Your task to perform on an android device: Search for the new Apple Watch on Best Buy Image 0: 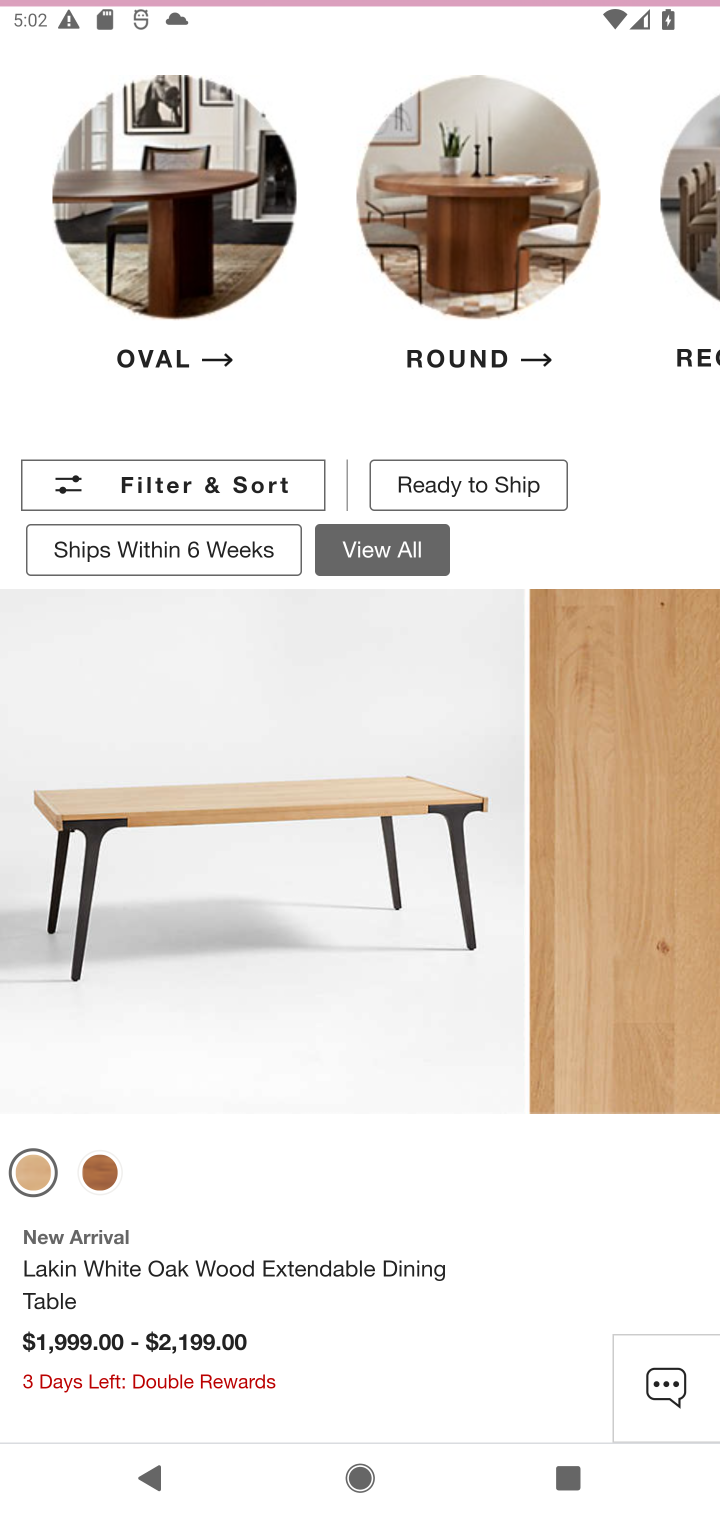
Step 0: press home button
Your task to perform on an android device: Search for the new Apple Watch on Best Buy Image 1: 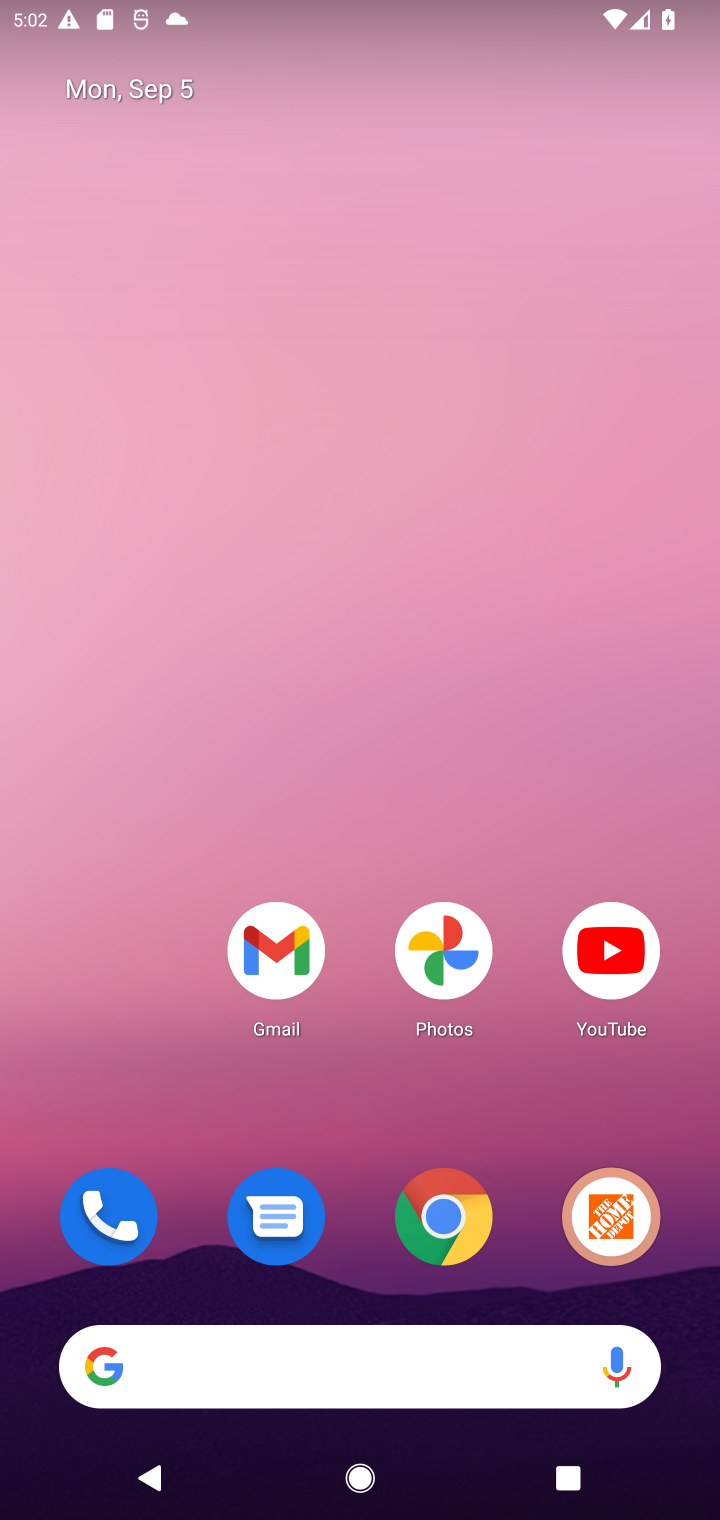
Step 1: click (95, 1362)
Your task to perform on an android device: Search for the new Apple Watch on Best Buy Image 2: 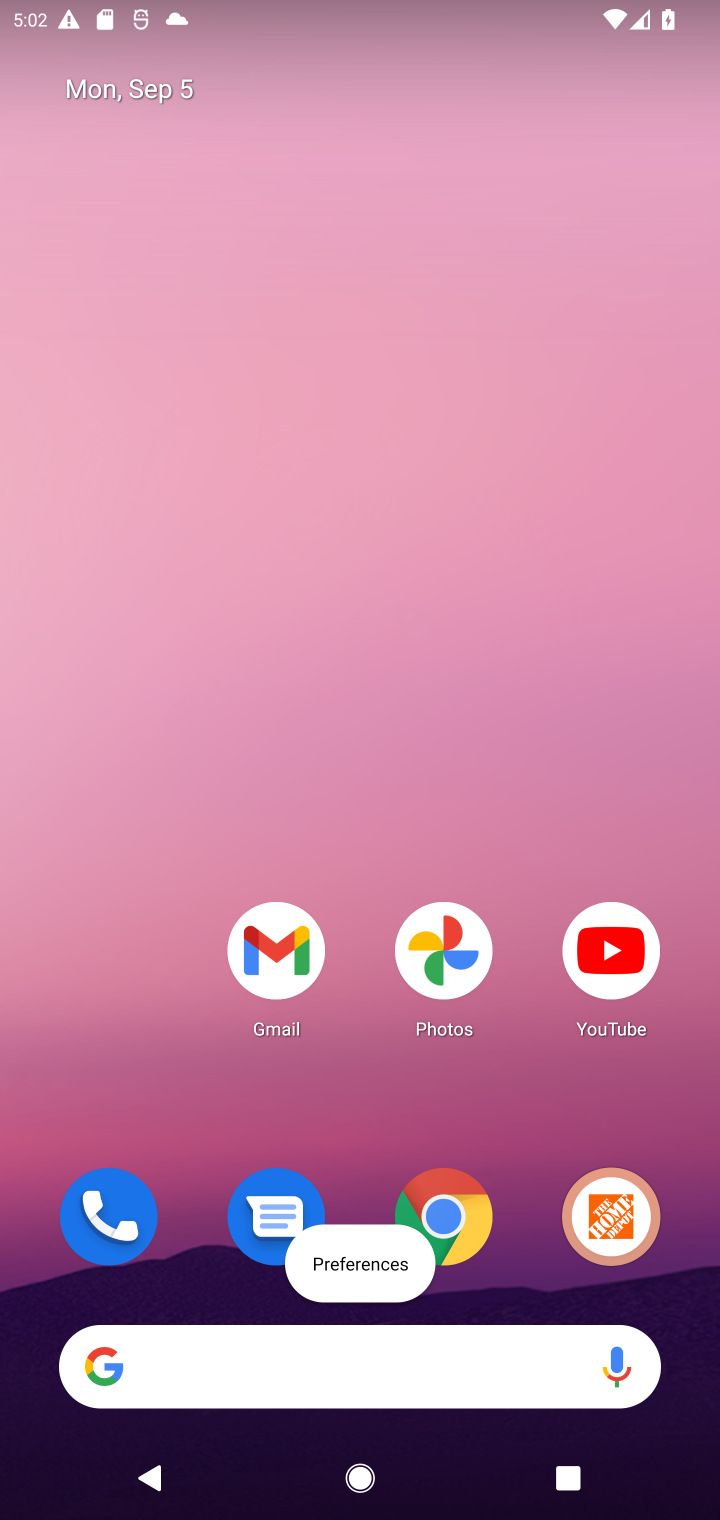
Step 2: click (105, 1380)
Your task to perform on an android device: Search for the new Apple Watch on Best Buy Image 3: 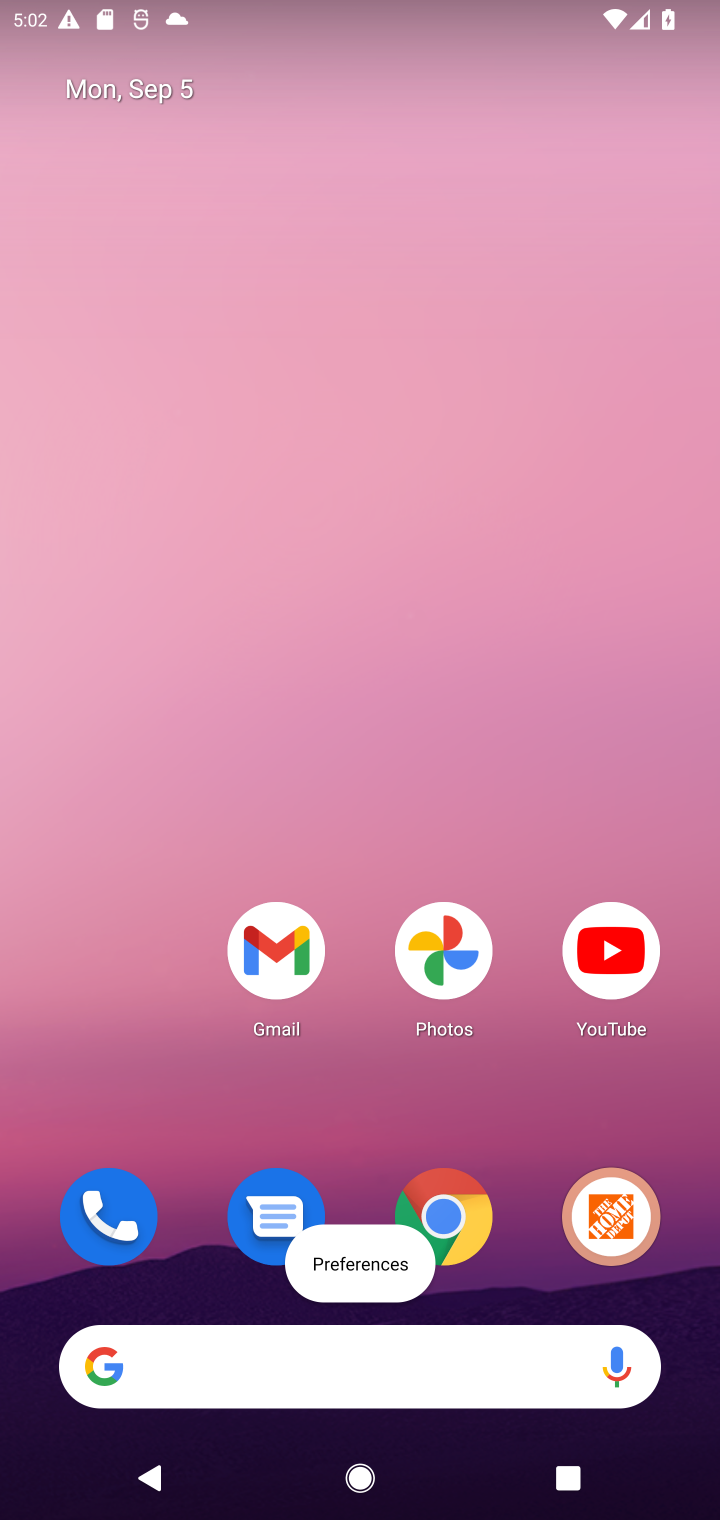
Step 3: click (95, 1368)
Your task to perform on an android device: Search for the new Apple Watch on Best Buy Image 4: 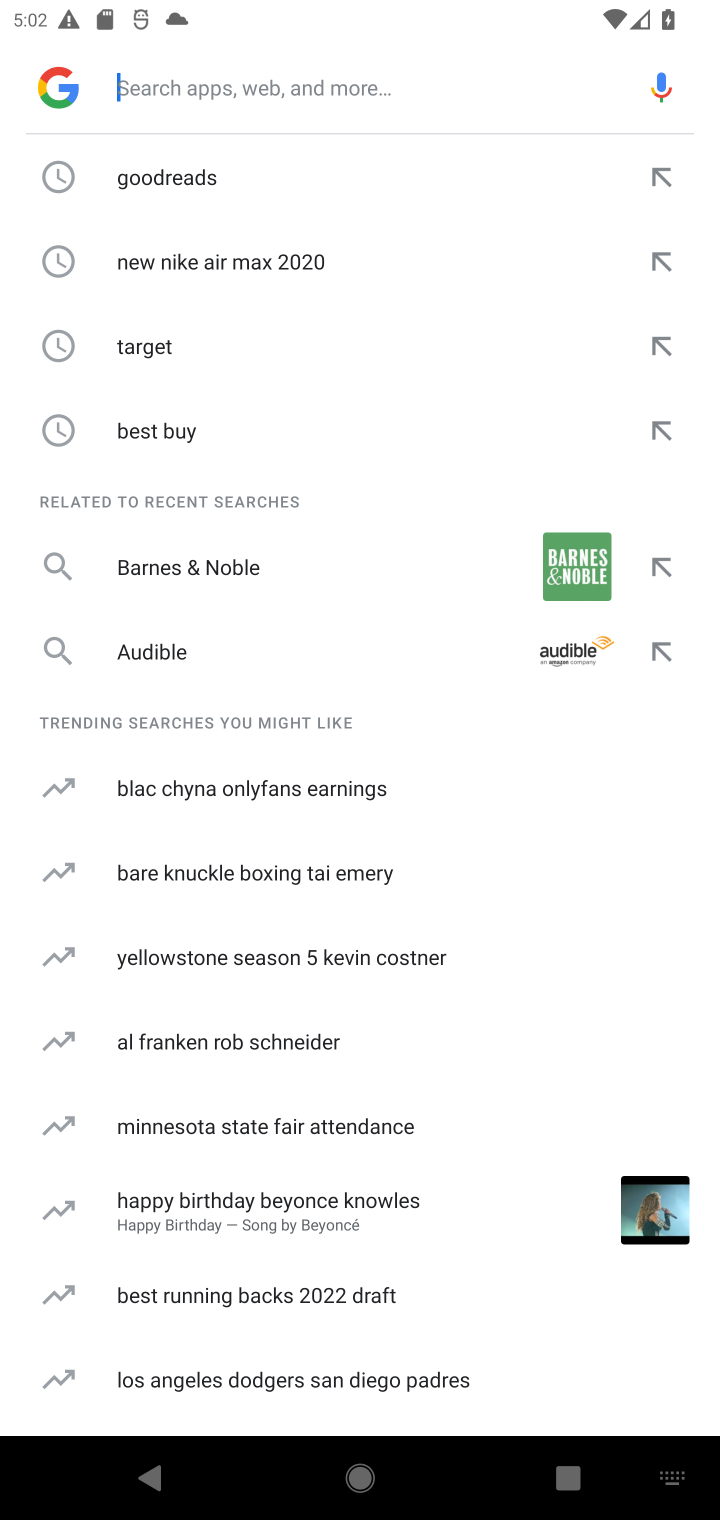
Step 4: type "Best Buy"
Your task to perform on an android device: Search for the new Apple Watch on Best Buy Image 5: 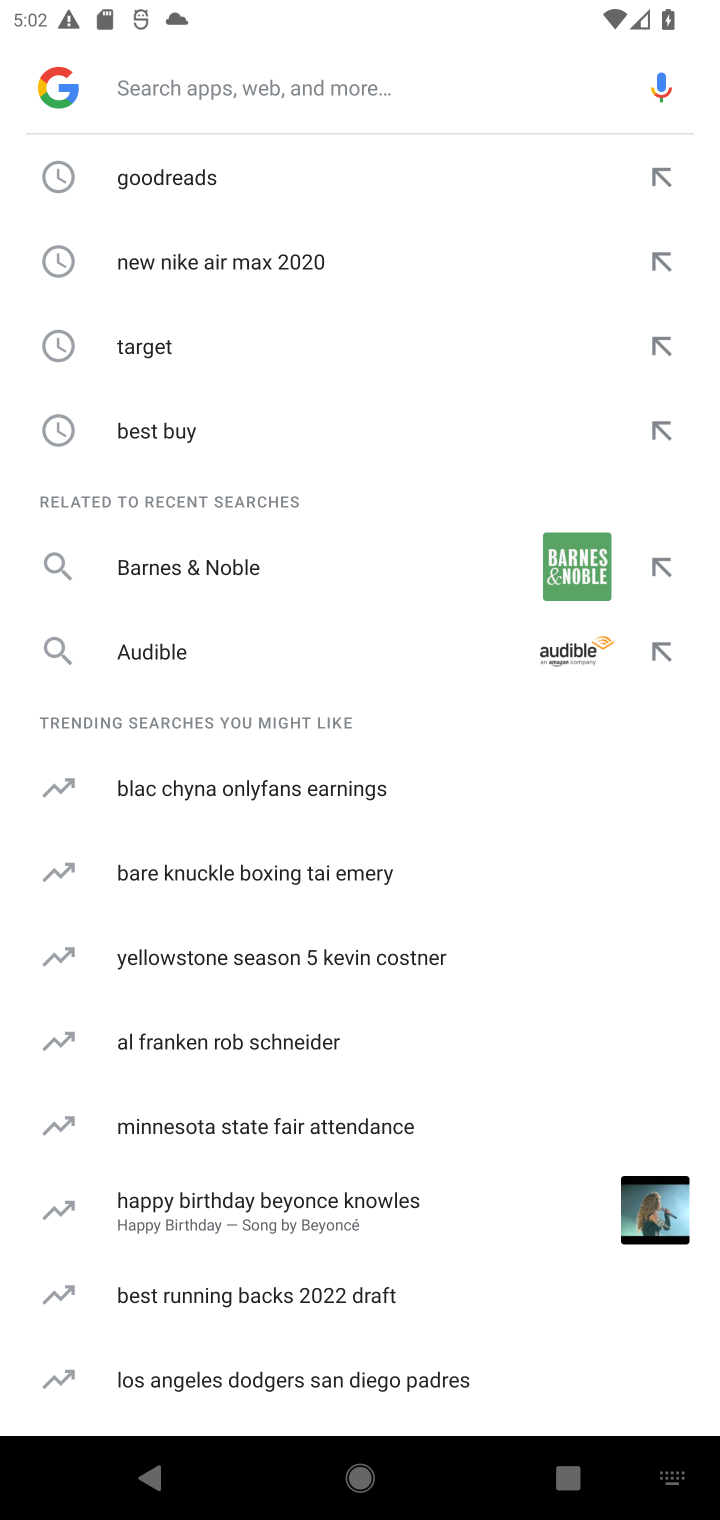
Step 5: click (228, 100)
Your task to perform on an android device: Search for the new Apple Watch on Best Buy Image 6: 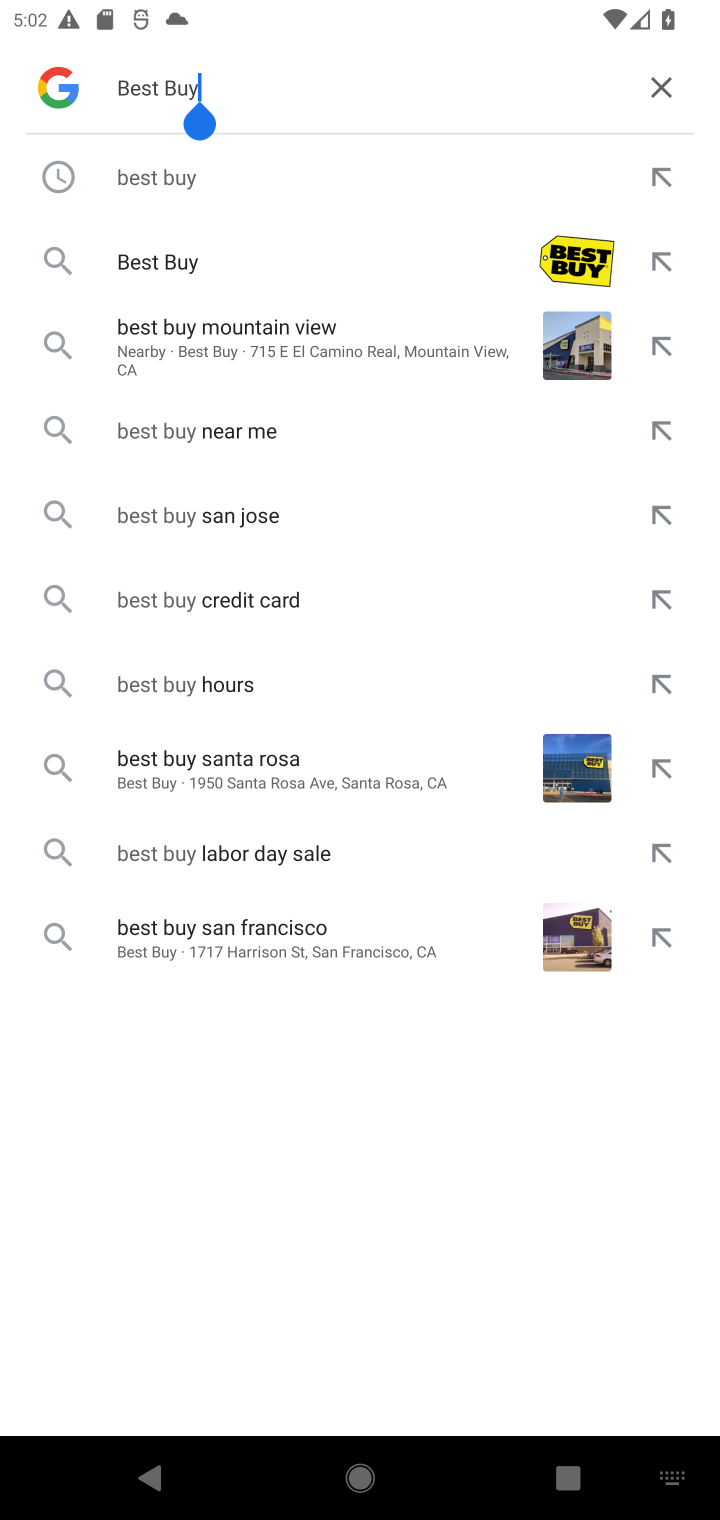
Step 6: press enter
Your task to perform on an android device: Search for the new Apple Watch on Best Buy Image 7: 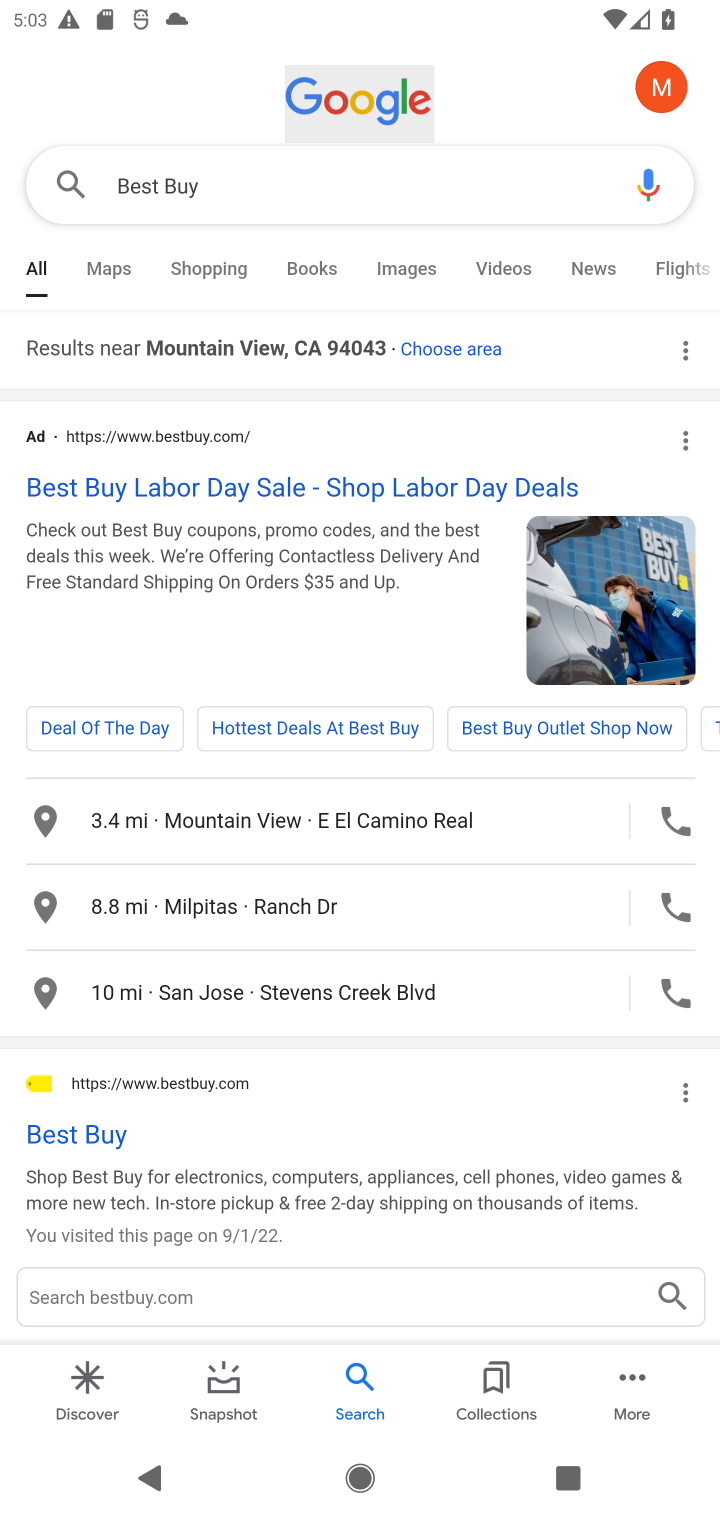
Step 7: click (162, 486)
Your task to perform on an android device: Search for the new Apple Watch on Best Buy Image 8: 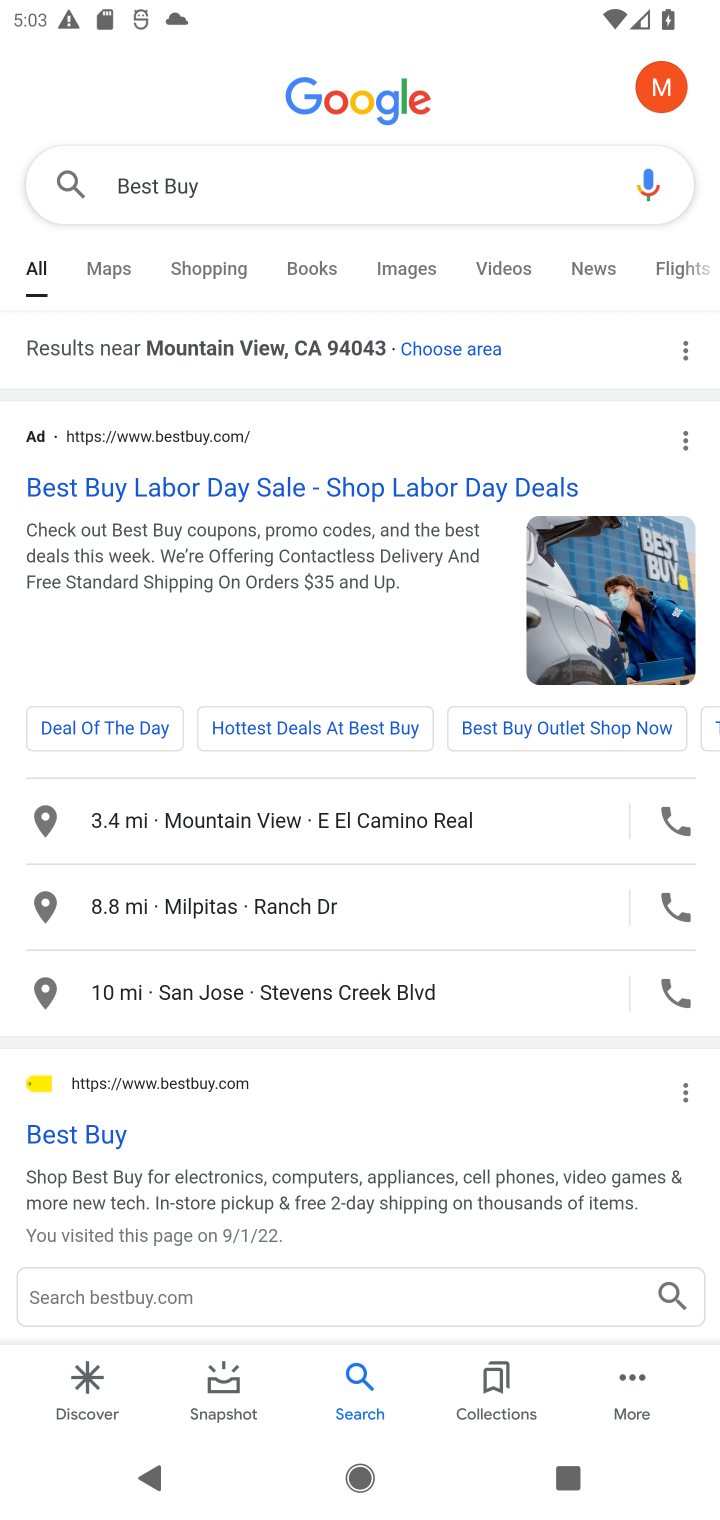
Step 8: click (52, 1146)
Your task to perform on an android device: Search for the new Apple Watch on Best Buy Image 9: 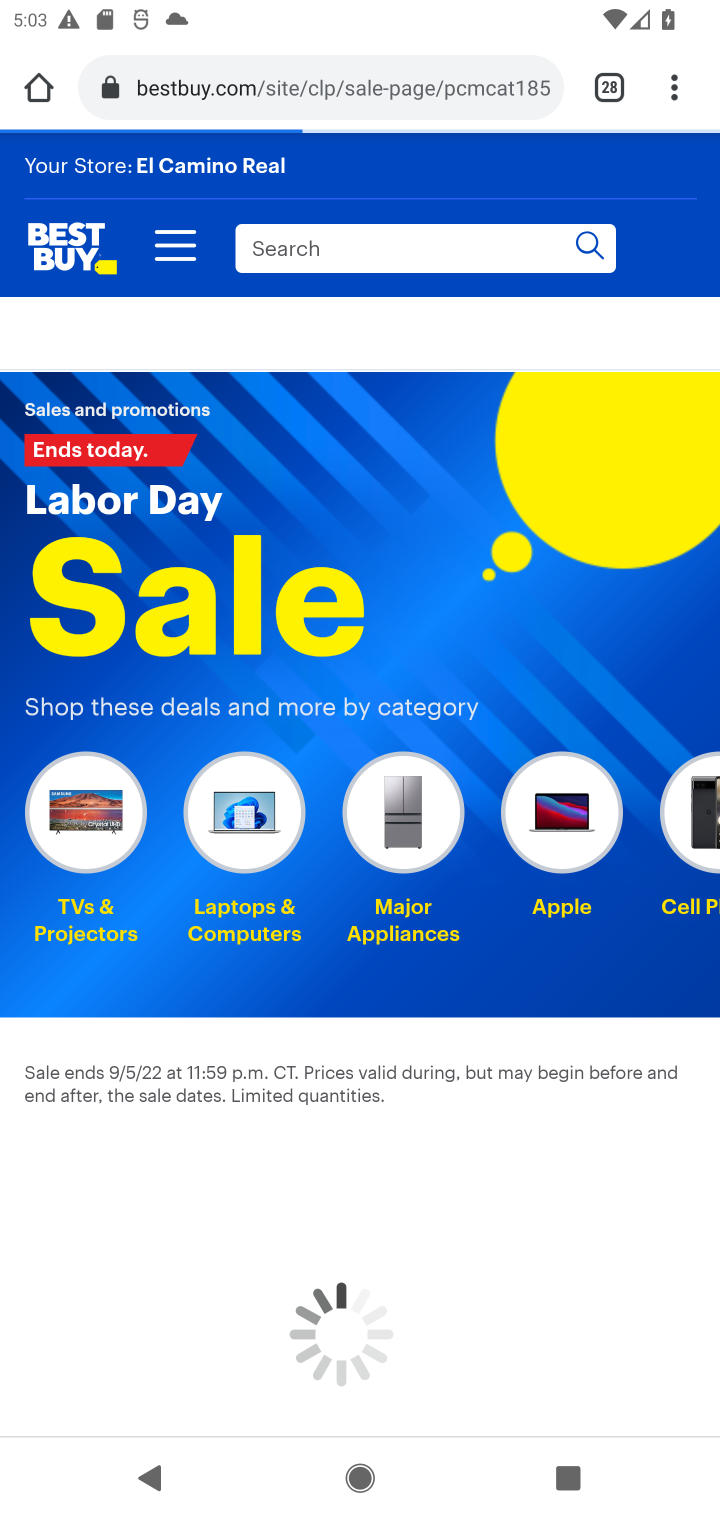
Step 9: click (342, 249)
Your task to perform on an android device: Search for the new Apple Watch on Best Buy Image 10: 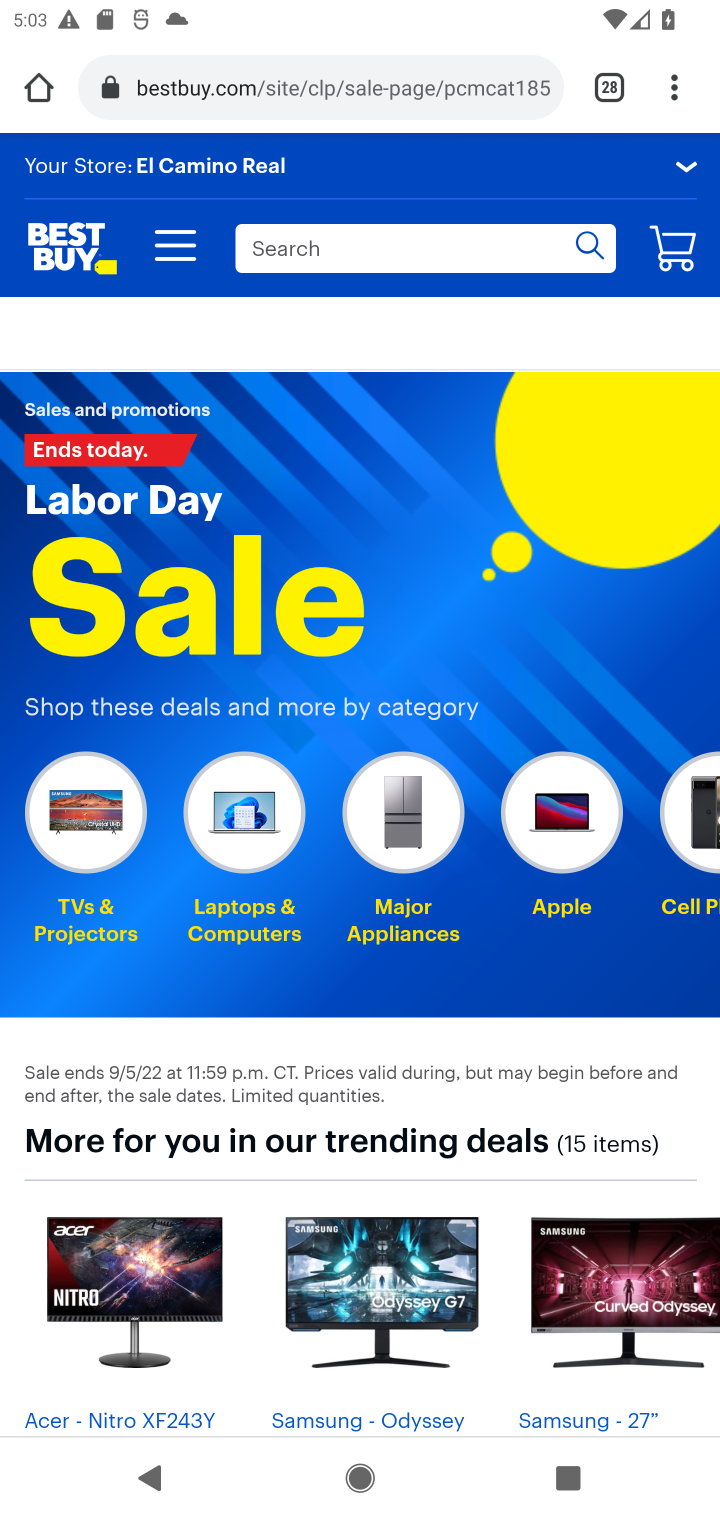
Step 10: click (329, 246)
Your task to perform on an android device: Search for the new Apple Watch on Best Buy Image 11: 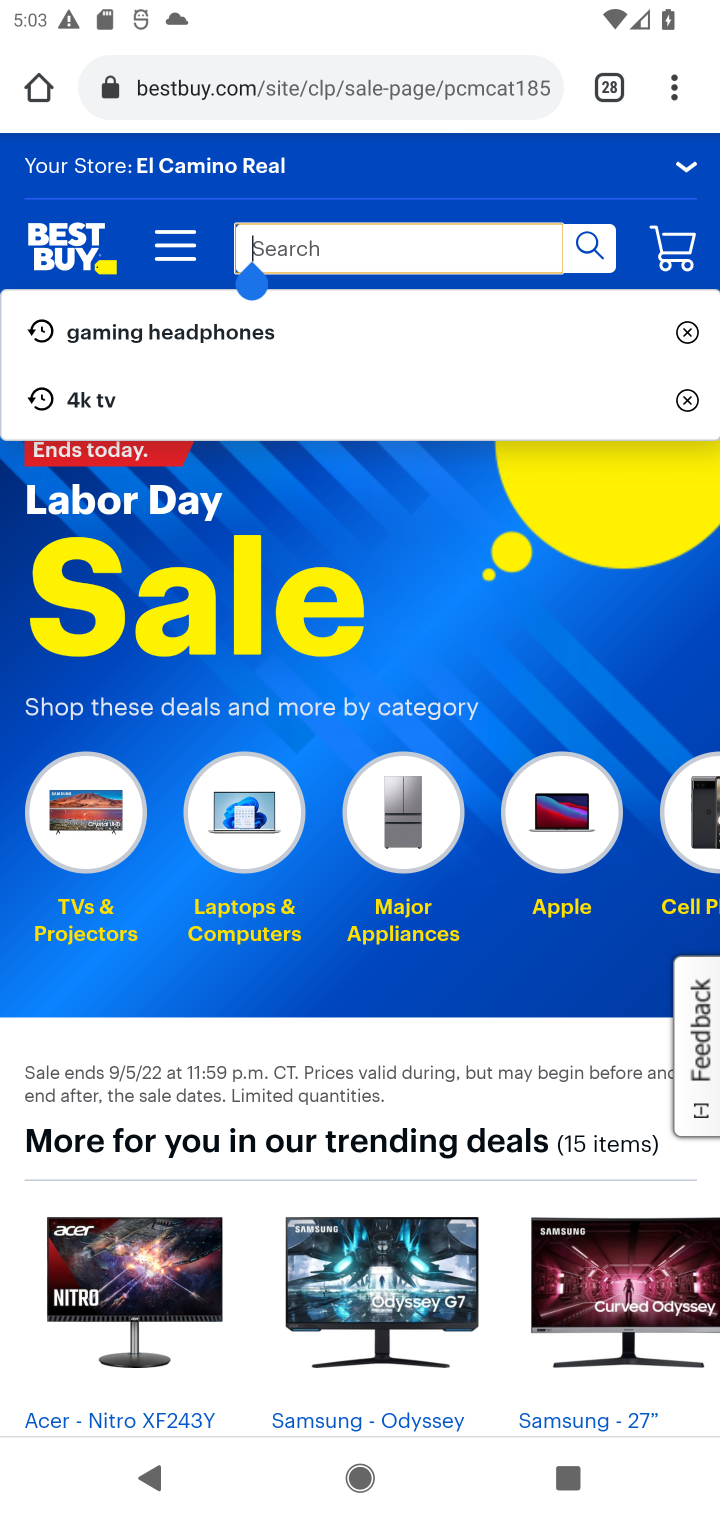
Step 11: type "new Apple Watch"
Your task to perform on an android device: Search for the new Apple Watch on Best Buy Image 12: 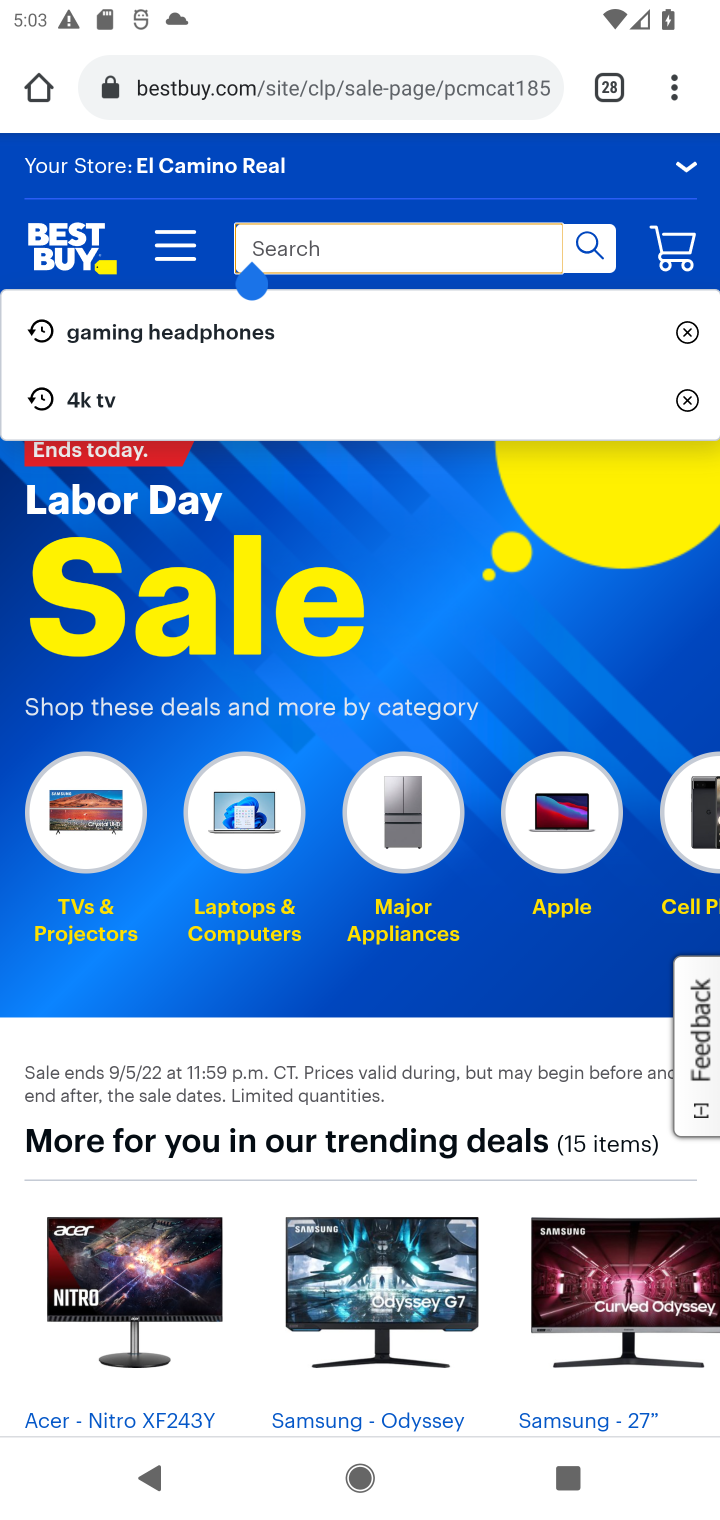
Step 12: click (337, 254)
Your task to perform on an android device: Search for the new Apple Watch on Best Buy Image 13: 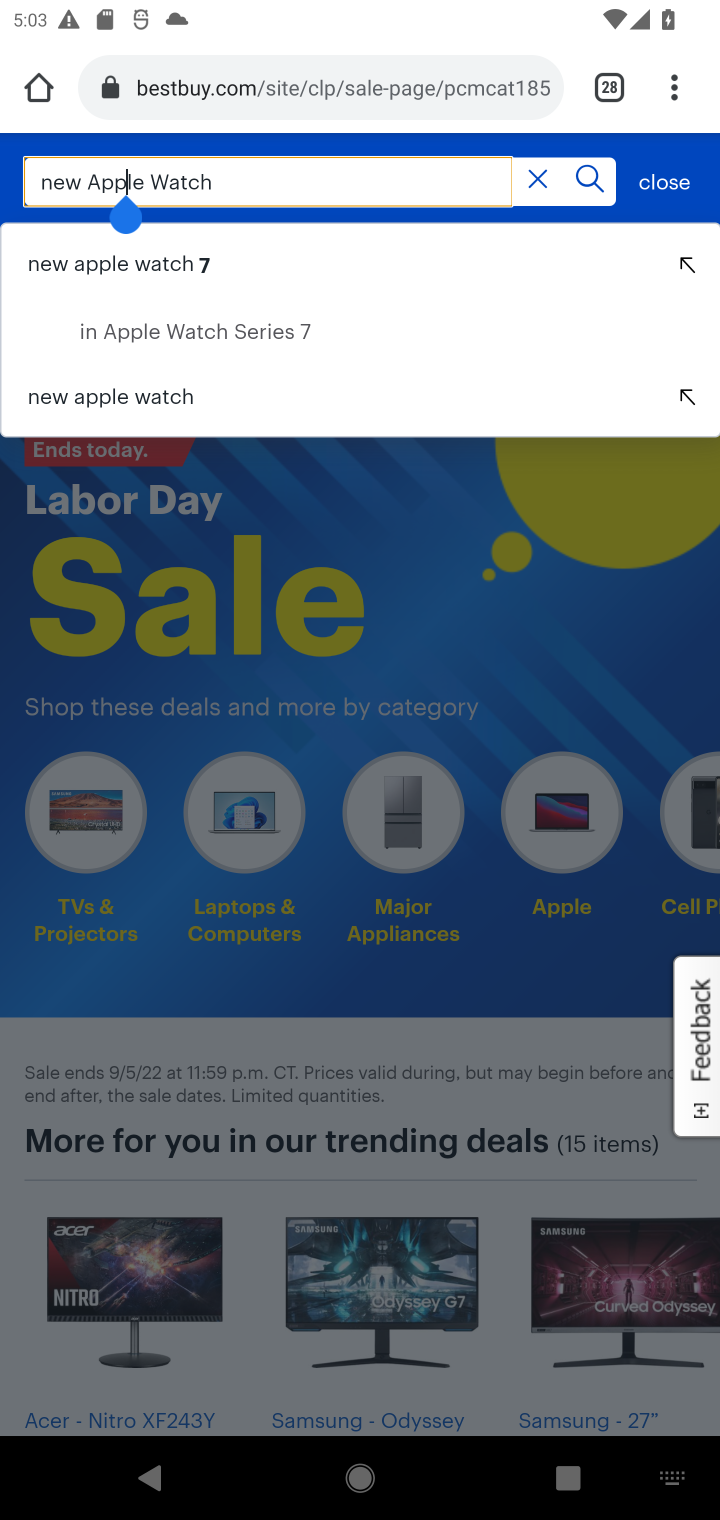
Step 13: press enter
Your task to perform on an android device: Search for the new Apple Watch on Best Buy Image 14: 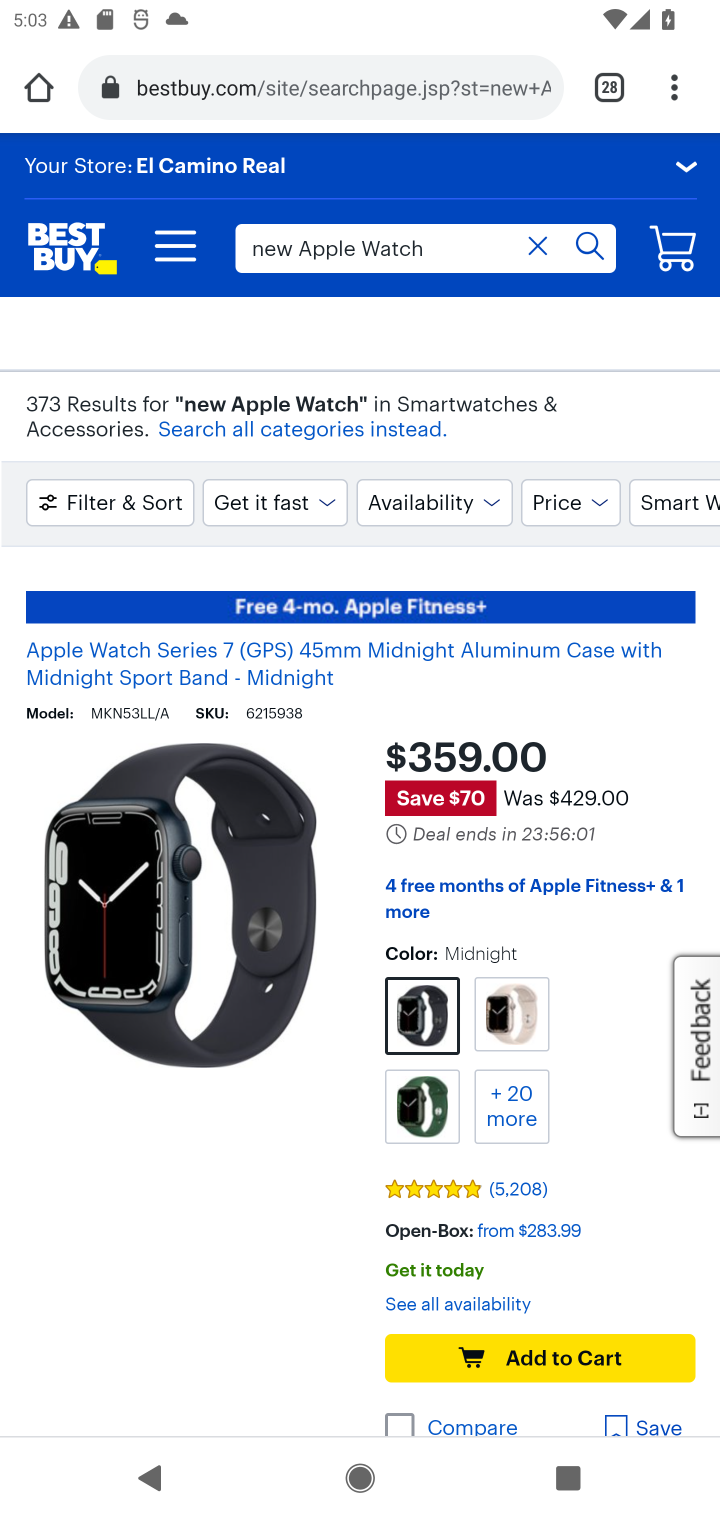
Step 14: task complete